Your task to perform on an android device: Open privacy settings Image 0: 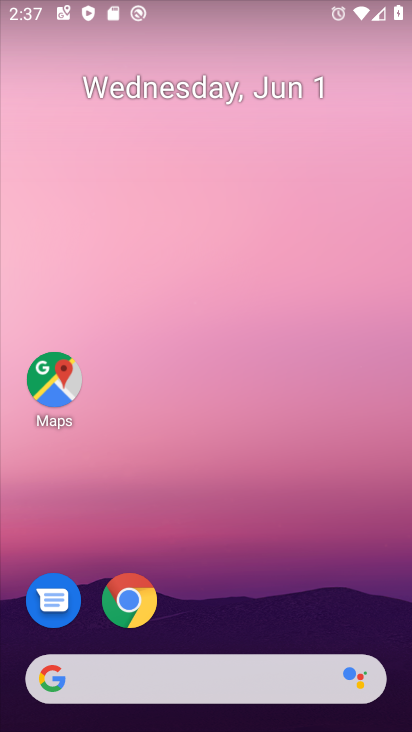
Step 0: drag from (280, 516) to (188, 18)
Your task to perform on an android device: Open privacy settings Image 1: 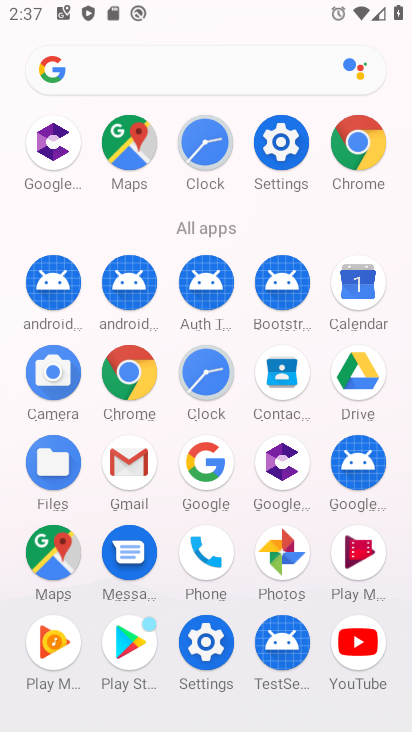
Step 1: drag from (10, 524) to (16, 218)
Your task to perform on an android device: Open privacy settings Image 2: 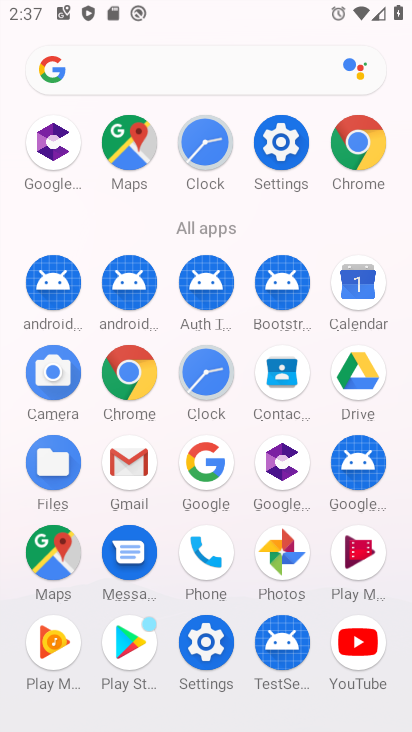
Step 2: click (202, 641)
Your task to perform on an android device: Open privacy settings Image 3: 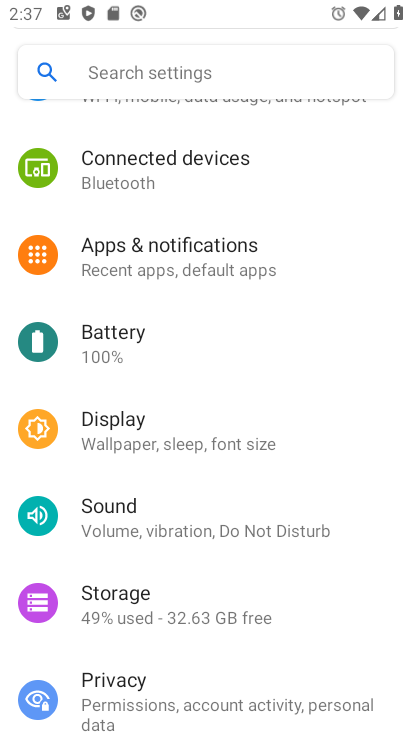
Step 3: drag from (251, 603) to (286, 157)
Your task to perform on an android device: Open privacy settings Image 4: 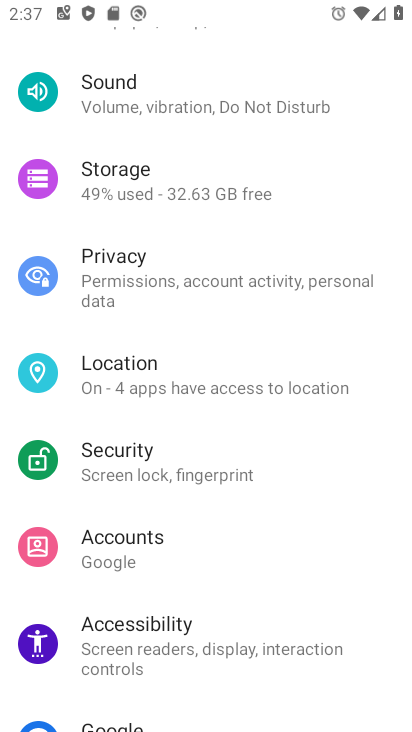
Step 4: drag from (223, 542) to (222, 198)
Your task to perform on an android device: Open privacy settings Image 5: 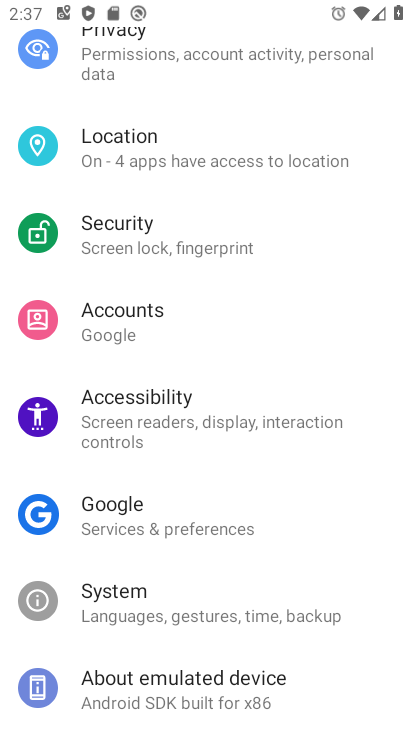
Step 5: click (173, 510)
Your task to perform on an android device: Open privacy settings Image 6: 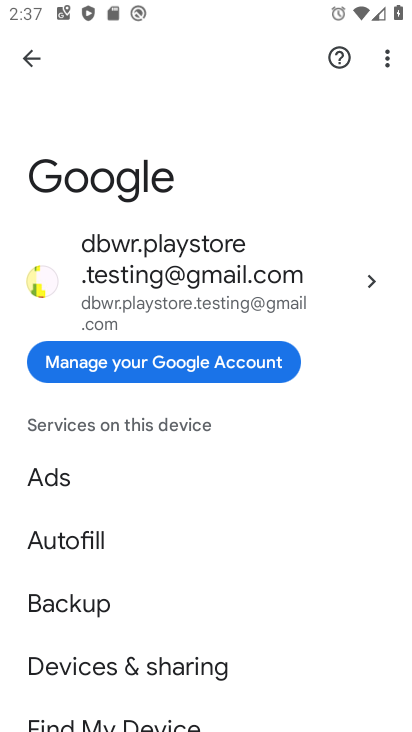
Step 6: drag from (198, 559) to (258, 146)
Your task to perform on an android device: Open privacy settings Image 7: 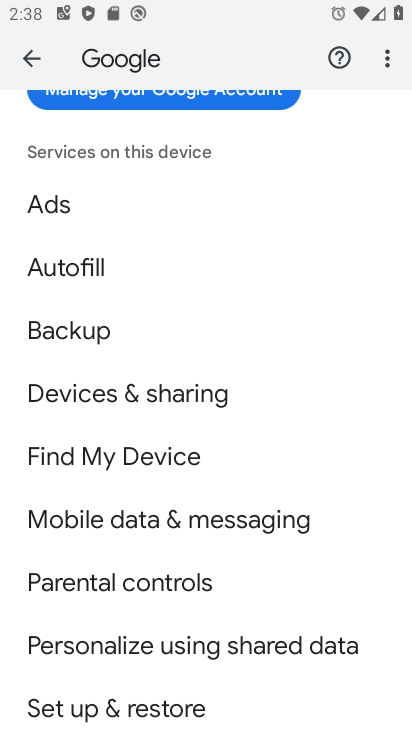
Step 7: drag from (244, 523) to (272, 168)
Your task to perform on an android device: Open privacy settings Image 8: 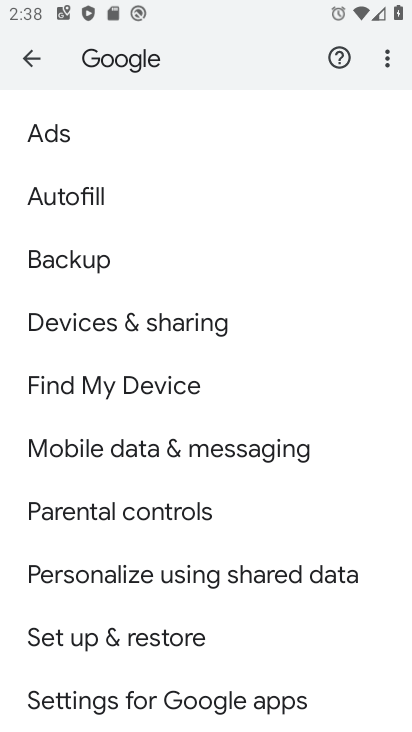
Step 8: drag from (273, 169) to (268, 630)
Your task to perform on an android device: Open privacy settings Image 9: 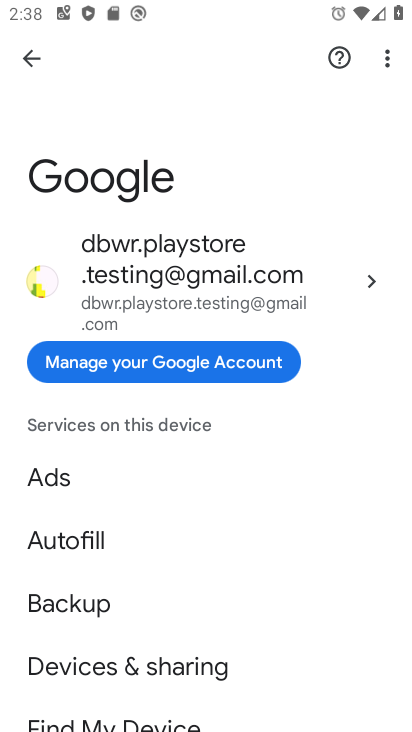
Step 9: click (35, 64)
Your task to perform on an android device: Open privacy settings Image 10: 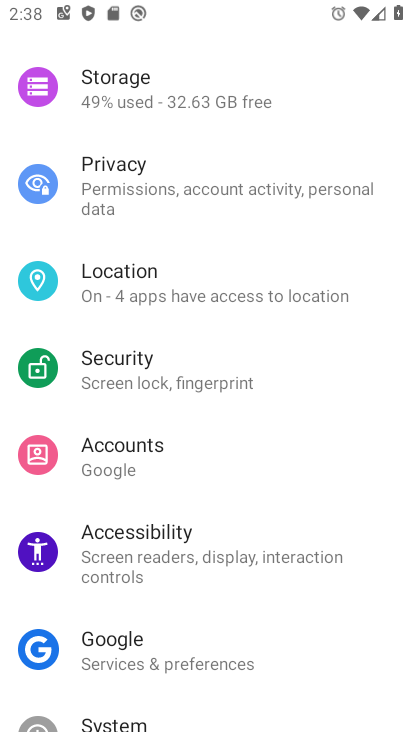
Step 10: click (159, 169)
Your task to perform on an android device: Open privacy settings Image 11: 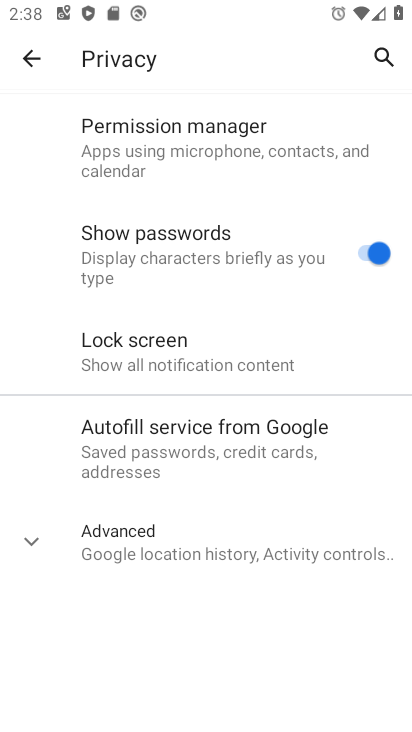
Step 11: click (38, 545)
Your task to perform on an android device: Open privacy settings Image 12: 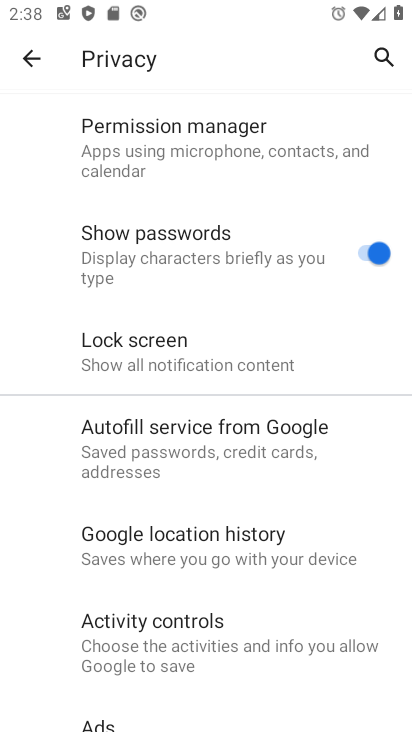
Step 12: task complete